Your task to perform on an android device: turn on priority inbox in the gmail app Image 0: 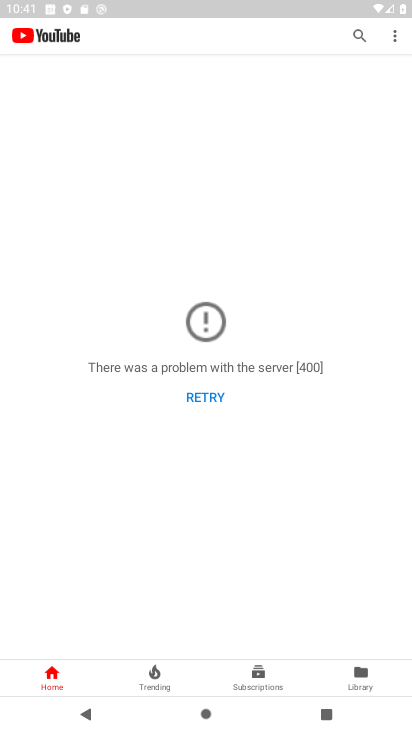
Step 0: press back button
Your task to perform on an android device: turn on priority inbox in the gmail app Image 1: 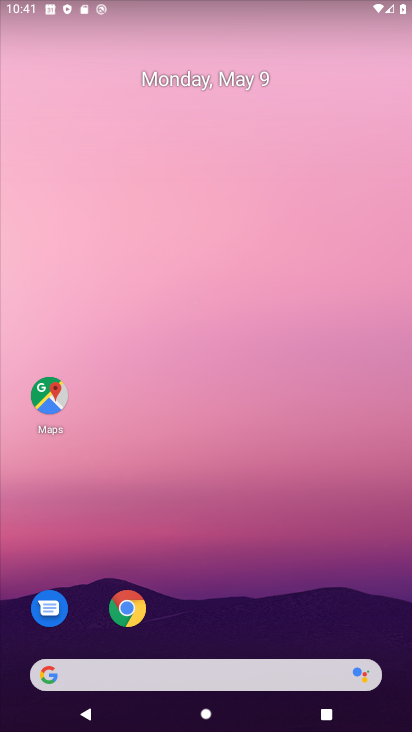
Step 1: drag from (172, 649) to (287, 151)
Your task to perform on an android device: turn on priority inbox in the gmail app Image 2: 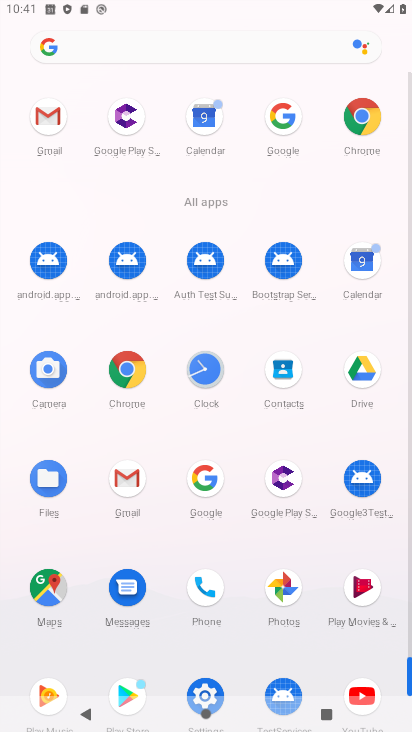
Step 2: click (139, 479)
Your task to perform on an android device: turn on priority inbox in the gmail app Image 3: 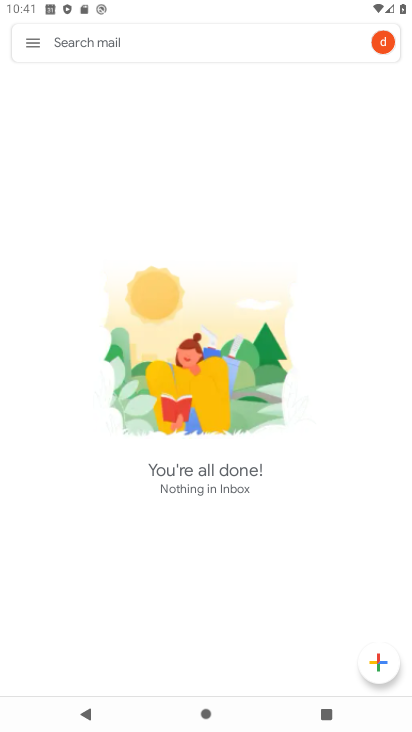
Step 3: click (30, 45)
Your task to perform on an android device: turn on priority inbox in the gmail app Image 4: 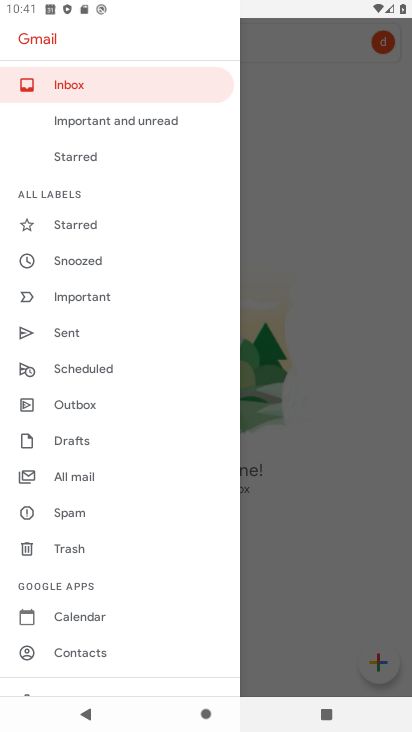
Step 4: drag from (82, 631) to (201, 191)
Your task to perform on an android device: turn on priority inbox in the gmail app Image 5: 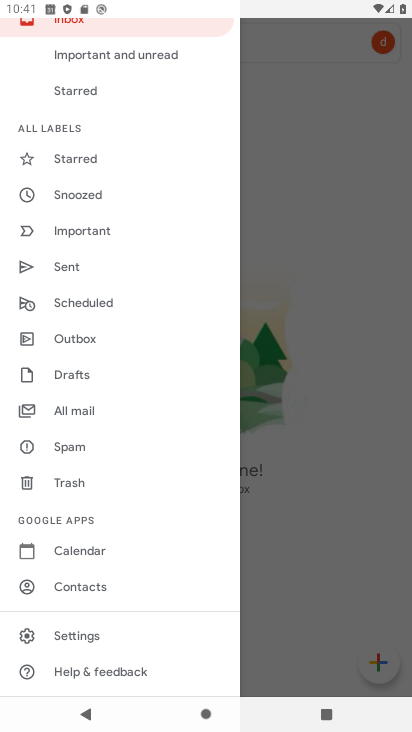
Step 5: click (108, 642)
Your task to perform on an android device: turn on priority inbox in the gmail app Image 6: 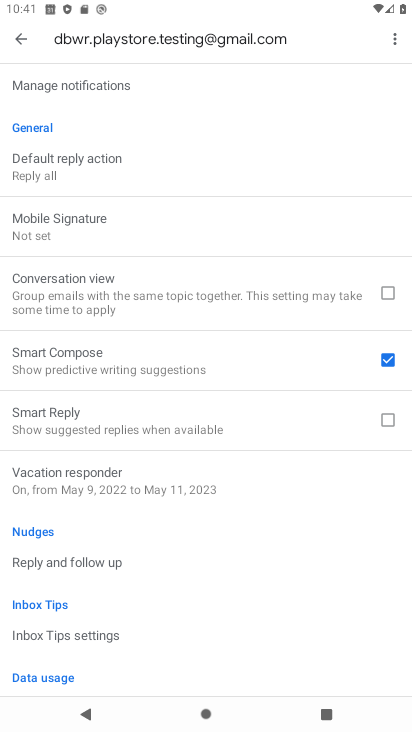
Step 6: drag from (193, 187) to (163, 634)
Your task to perform on an android device: turn on priority inbox in the gmail app Image 7: 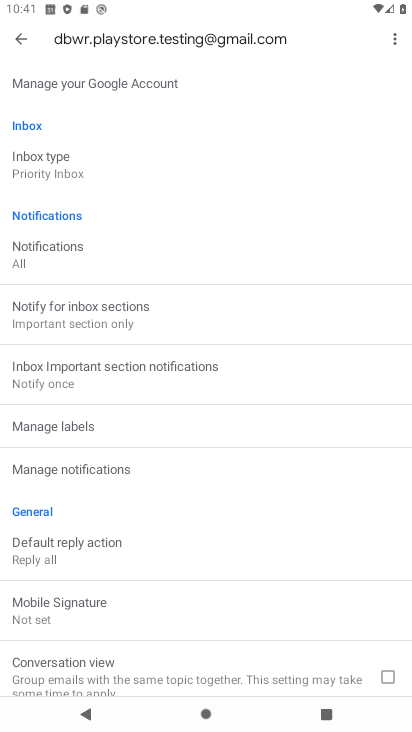
Step 7: click (85, 153)
Your task to perform on an android device: turn on priority inbox in the gmail app Image 8: 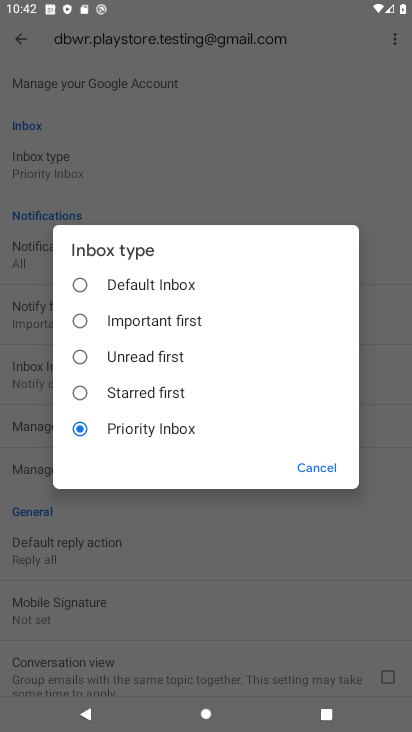
Step 8: task complete